Your task to perform on an android device: Open Android settings Image 0: 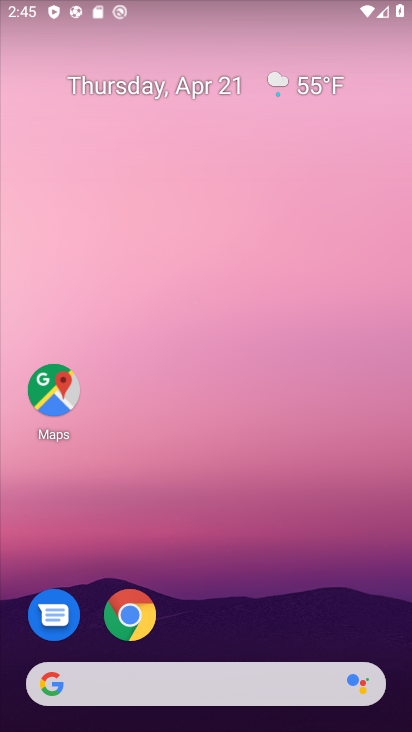
Step 0: drag from (160, 668) to (337, 47)
Your task to perform on an android device: Open Android settings Image 1: 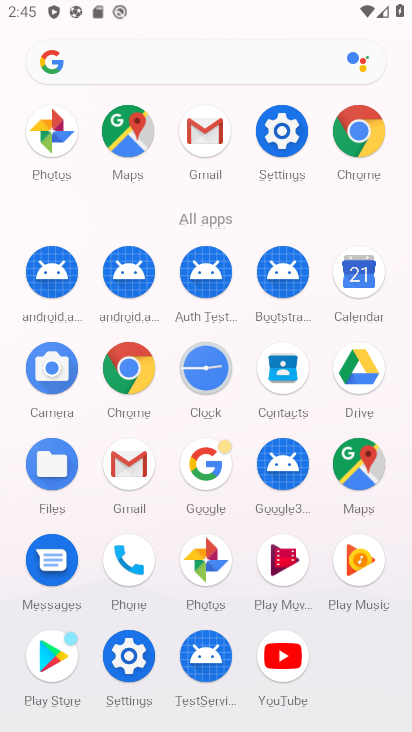
Step 1: click (288, 136)
Your task to perform on an android device: Open Android settings Image 2: 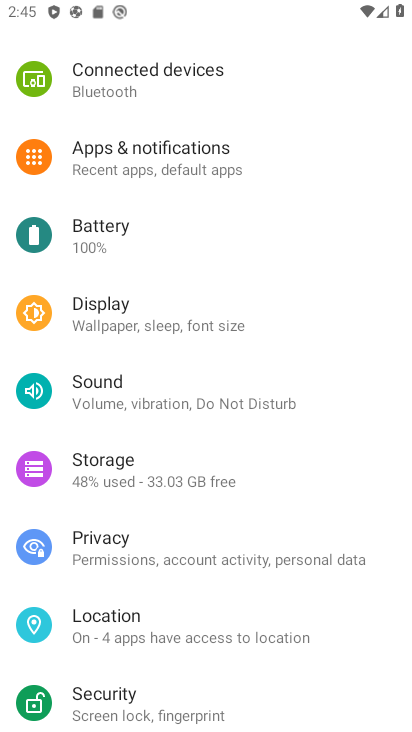
Step 2: task complete